Your task to perform on an android device: open app "Duolingo: language lessons" (install if not already installed) Image 0: 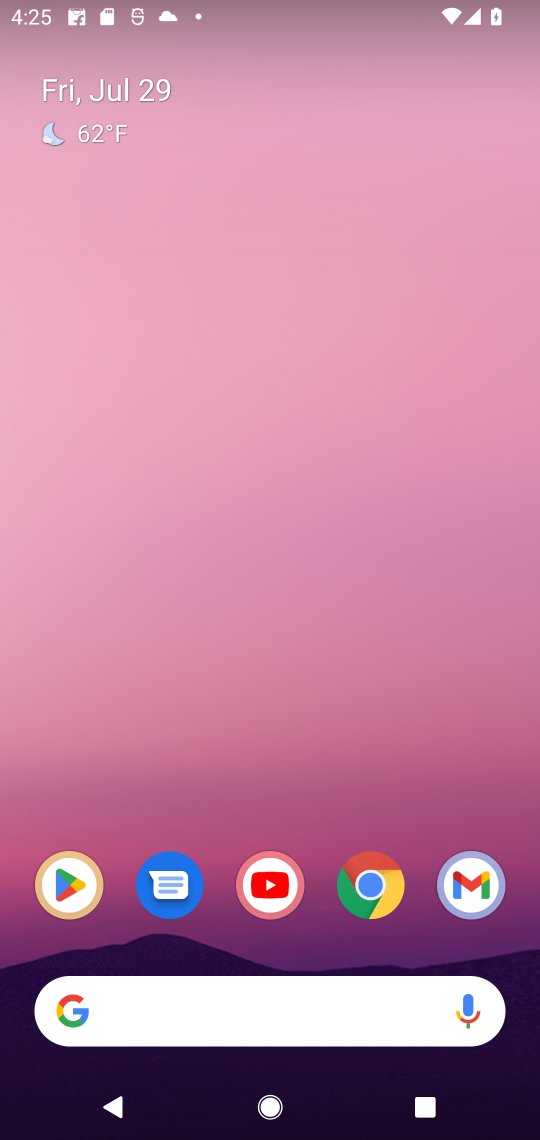
Step 0: click (81, 897)
Your task to perform on an android device: open app "Duolingo: language lessons" (install if not already installed) Image 1: 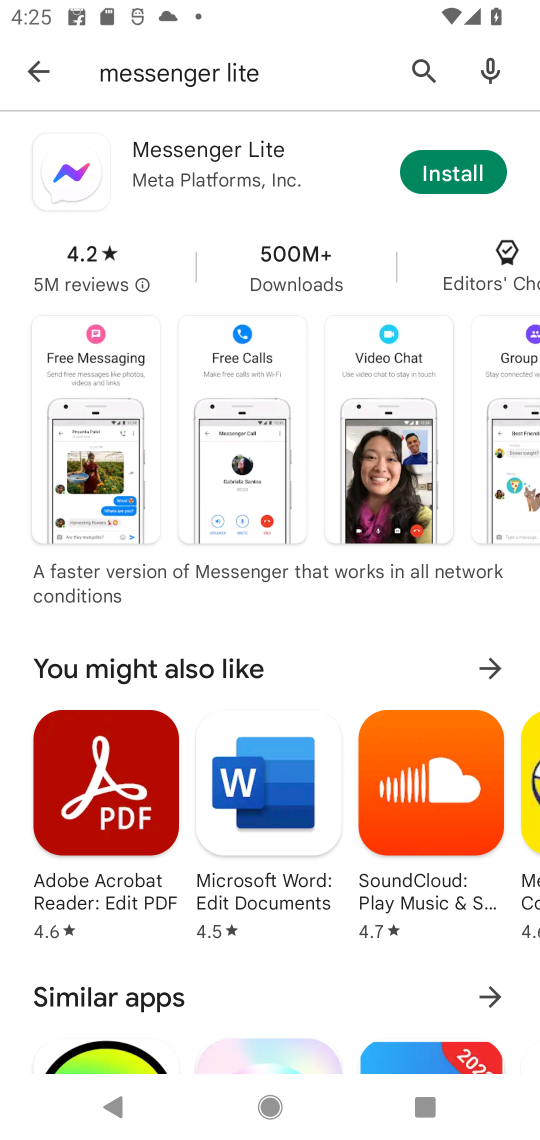
Step 1: click (421, 82)
Your task to perform on an android device: open app "Duolingo: language lessons" (install if not already installed) Image 2: 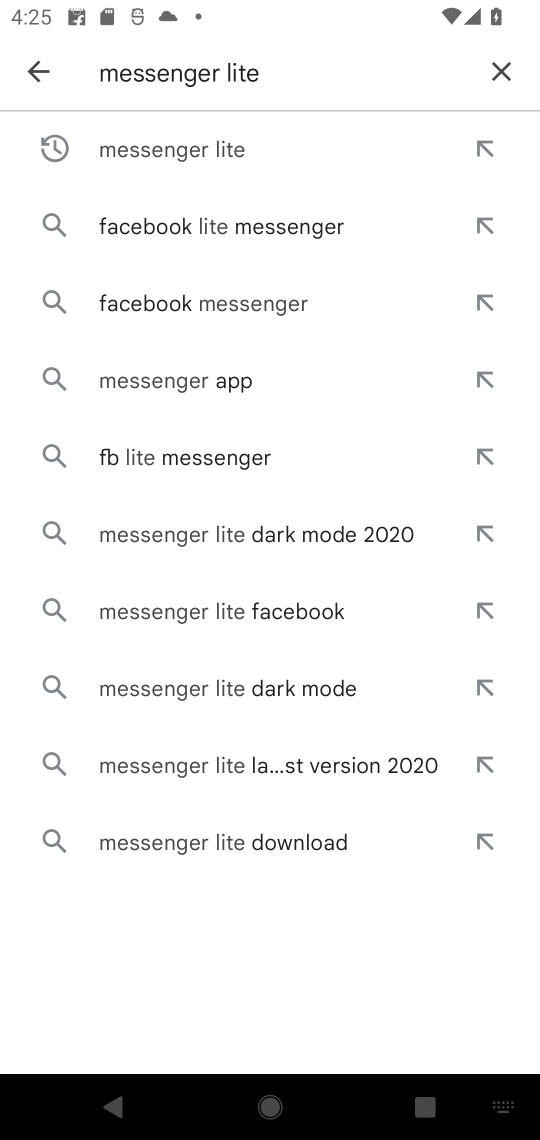
Step 2: click (504, 78)
Your task to perform on an android device: open app "Duolingo: language lessons" (install if not already installed) Image 3: 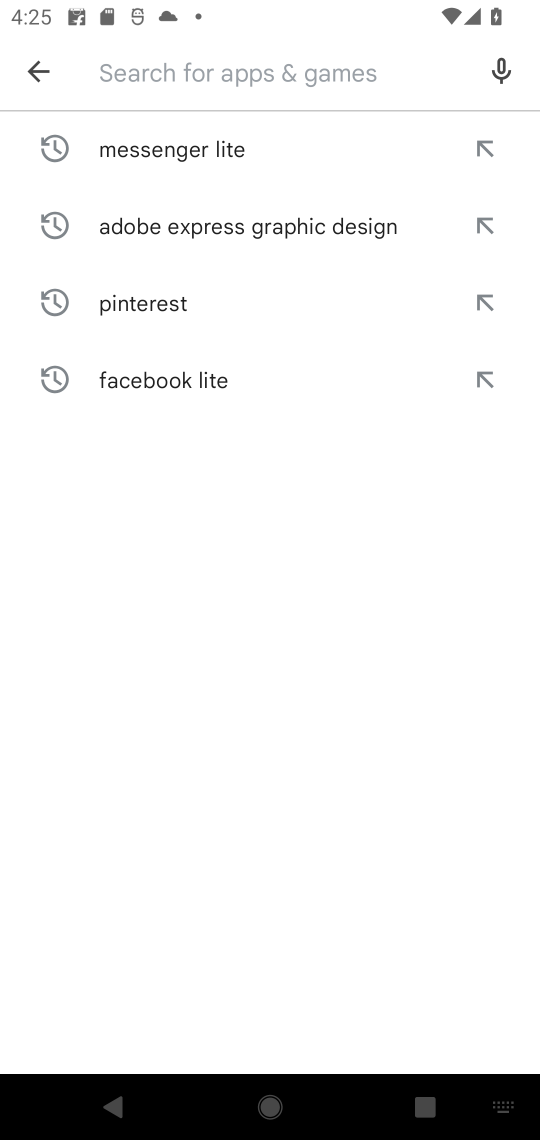
Step 3: type "Duolingo: language lessons"
Your task to perform on an android device: open app "Duolingo: language lessons" (install if not already installed) Image 4: 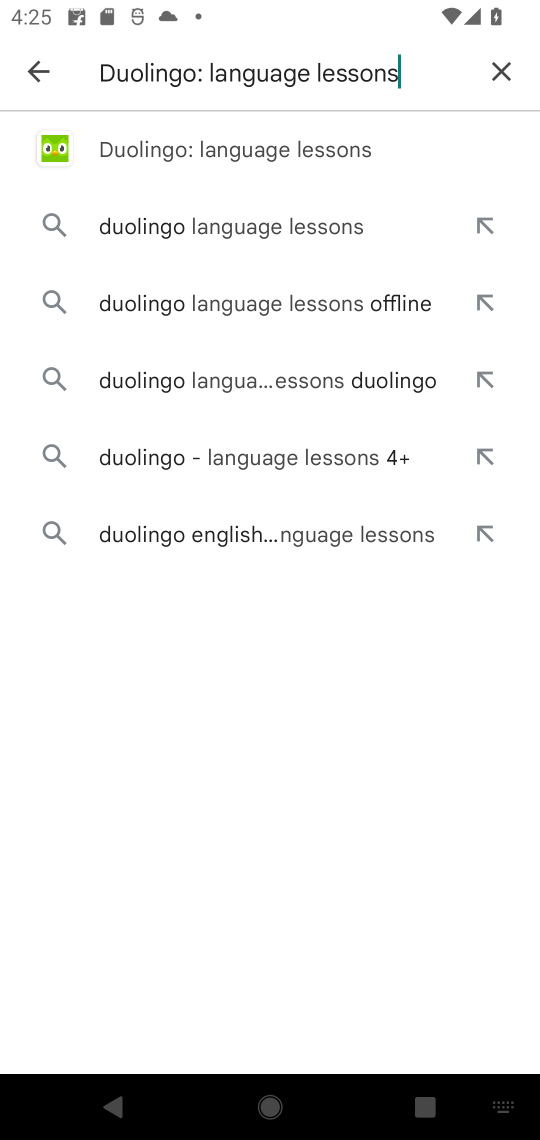
Step 4: click (263, 161)
Your task to perform on an android device: open app "Duolingo: language lessons" (install if not already installed) Image 5: 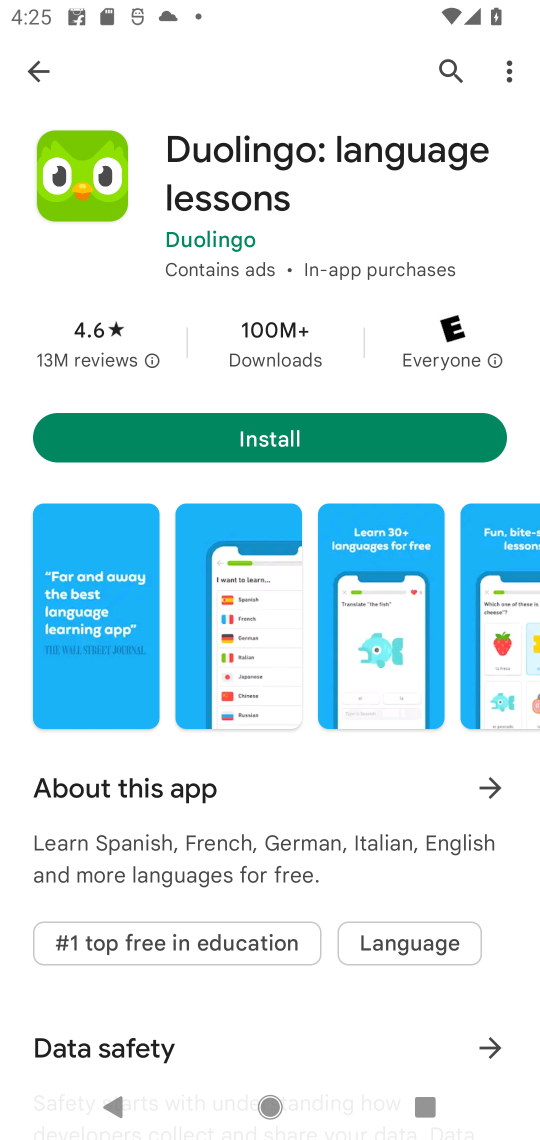
Step 5: click (154, 443)
Your task to perform on an android device: open app "Duolingo: language lessons" (install if not already installed) Image 6: 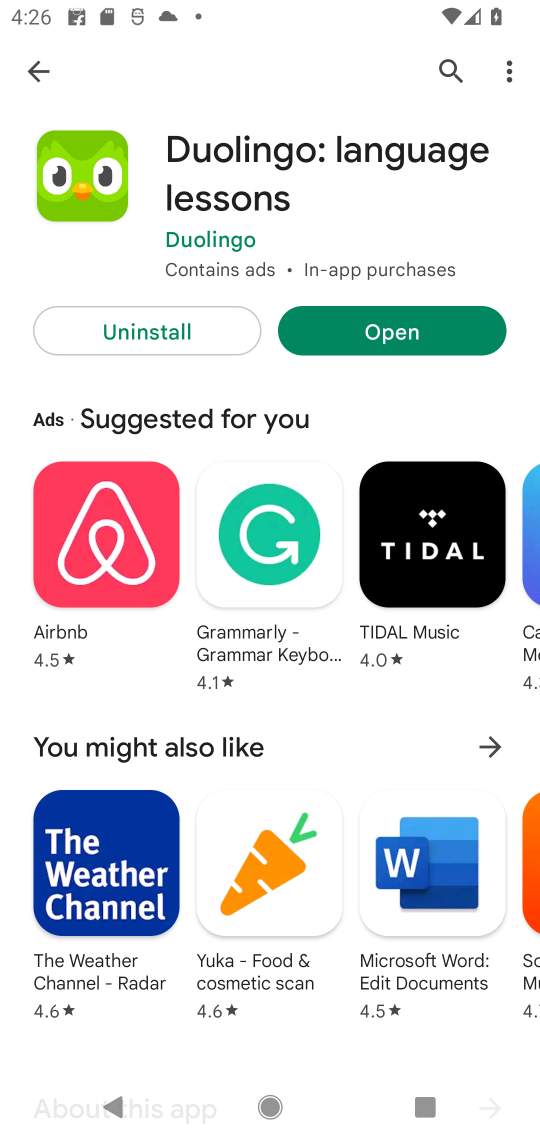
Step 6: click (381, 328)
Your task to perform on an android device: open app "Duolingo: language lessons" (install if not already installed) Image 7: 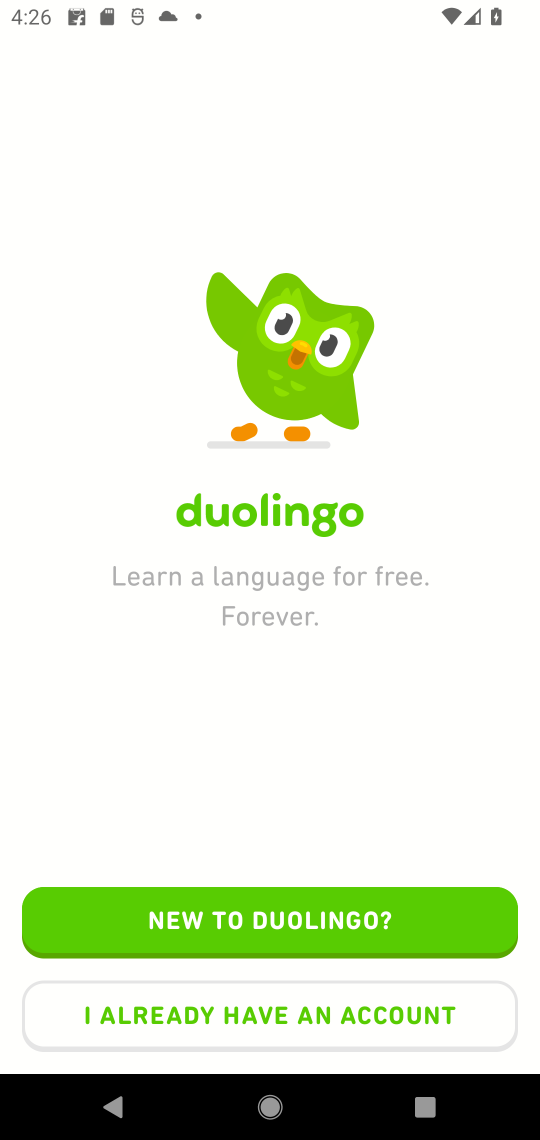
Step 7: task complete